Your task to perform on an android device: Go to Maps Image 0: 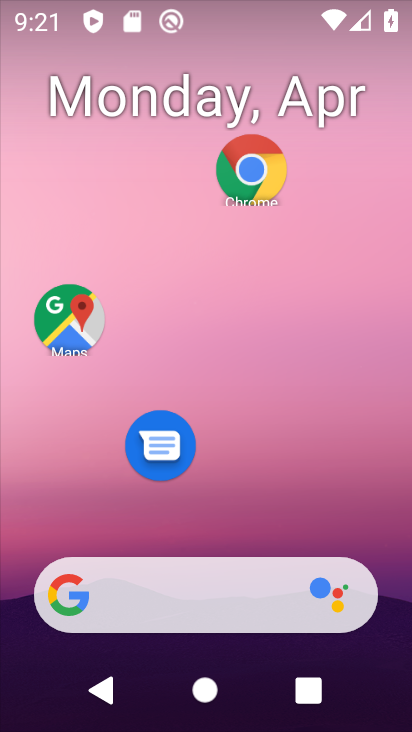
Step 0: click (78, 298)
Your task to perform on an android device: Go to Maps Image 1: 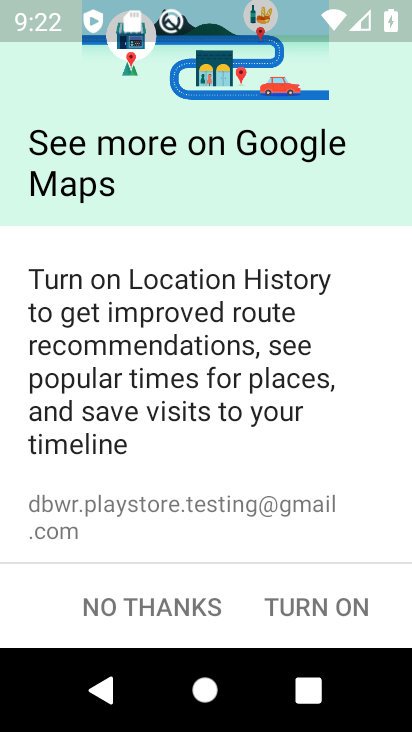
Step 1: click (289, 601)
Your task to perform on an android device: Go to Maps Image 2: 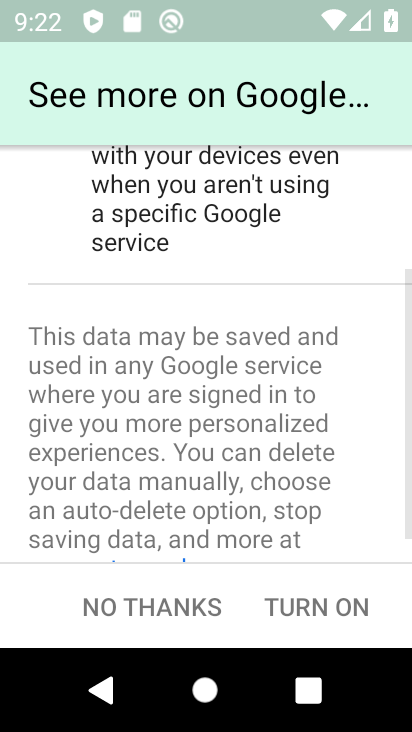
Step 2: click (298, 594)
Your task to perform on an android device: Go to Maps Image 3: 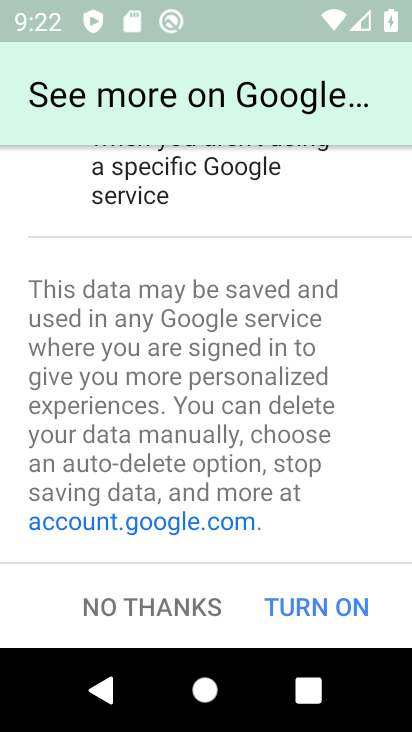
Step 3: click (301, 593)
Your task to perform on an android device: Go to Maps Image 4: 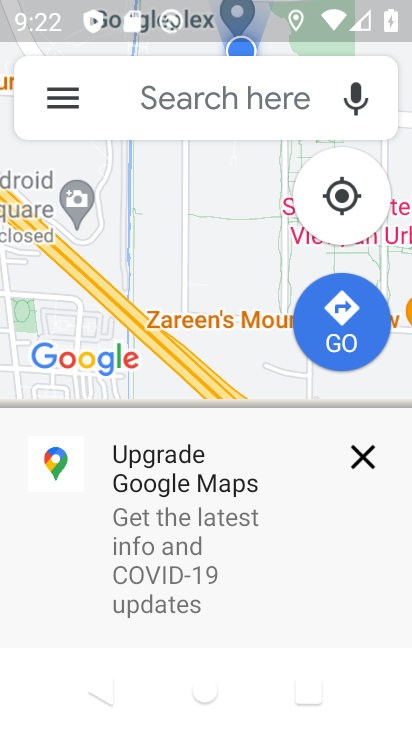
Step 4: task complete